Your task to perform on an android device: Go to ESPN.com Image 0: 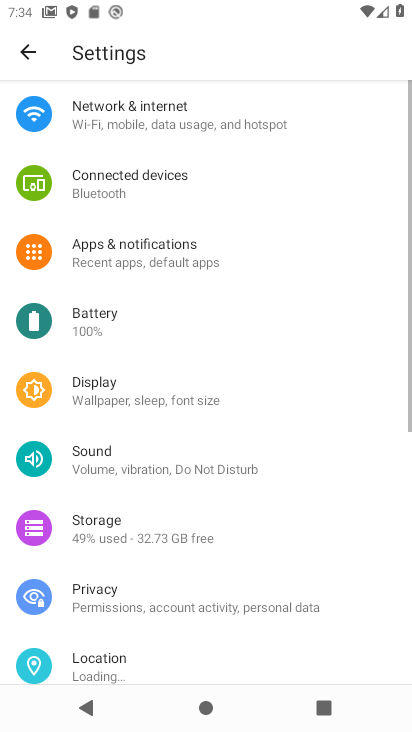
Step 0: press home button
Your task to perform on an android device: Go to ESPN.com Image 1: 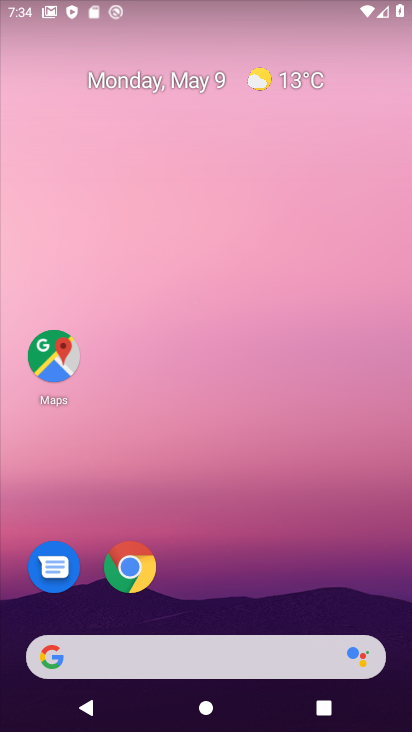
Step 1: click (204, 661)
Your task to perform on an android device: Go to ESPN.com Image 2: 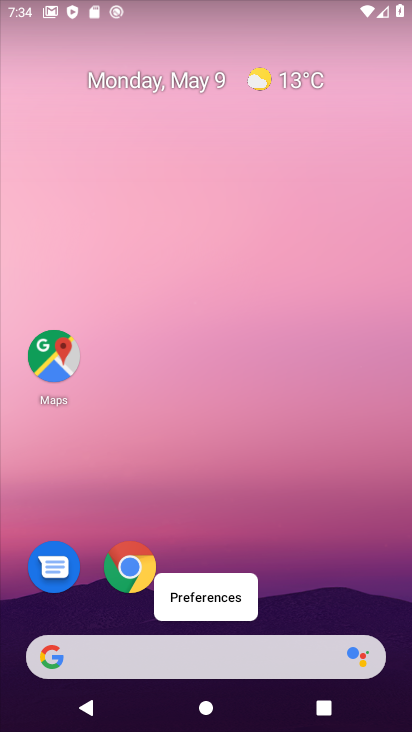
Step 2: click (204, 661)
Your task to perform on an android device: Go to ESPN.com Image 3: 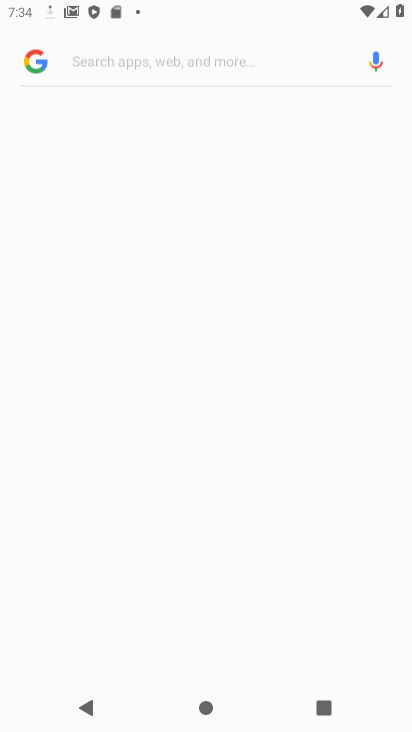
Step 3: click (204, 661)
Your task to perform on an android device: Go to ESPN.com Image 4: 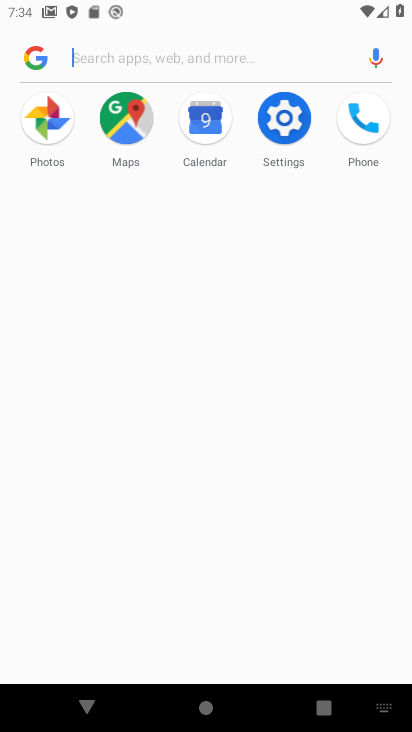
Step 4: type "espn.com"
Your task to perform on an android device: Go to ESPN.com Image 5: 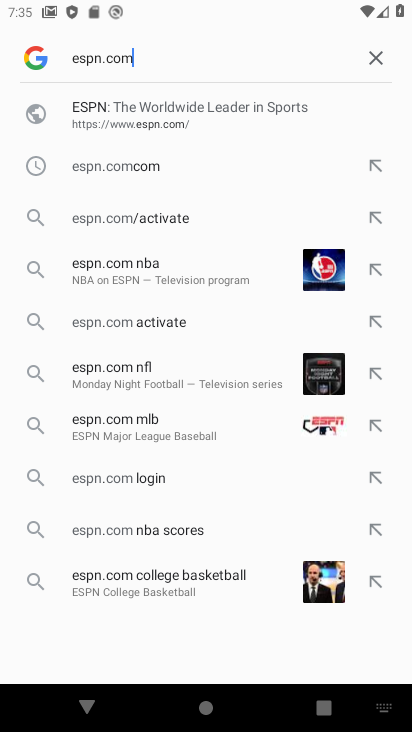
Step 5: click (76, 103)
Your task to perform on an android device: Go to ESPN.com Image 6: 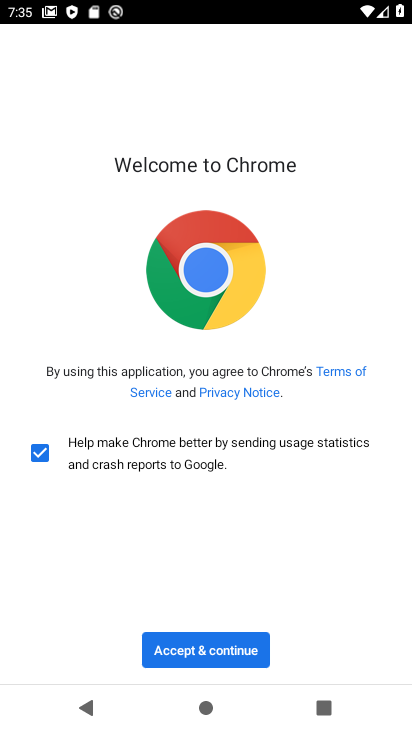
Step 6: click (212, 648)
Your task to perform on an android device: Go to ESPN.com Image 7: 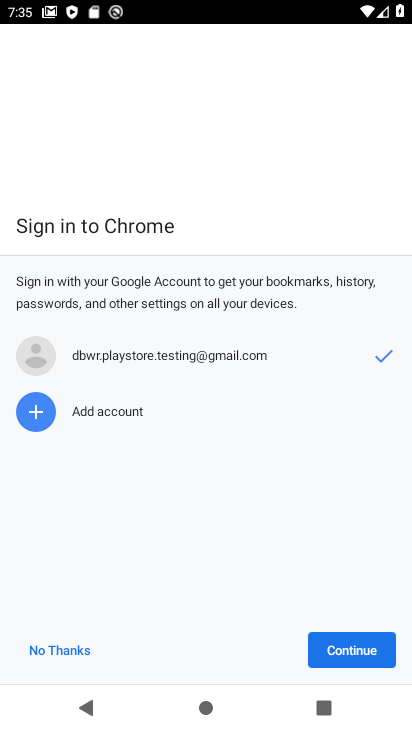
Step 7: click (374, 649)
Your task to perform on an android device: Go to ESPN.com Image 8: 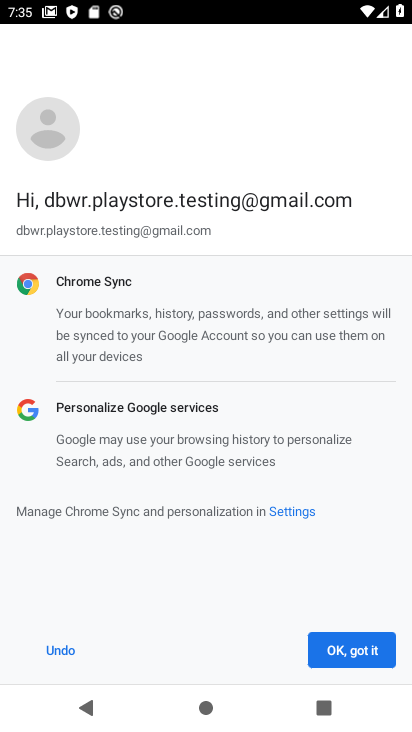
Step 8: click (375, 649)
Your task to perform on an android device: Go to ESPN.com Image 9: 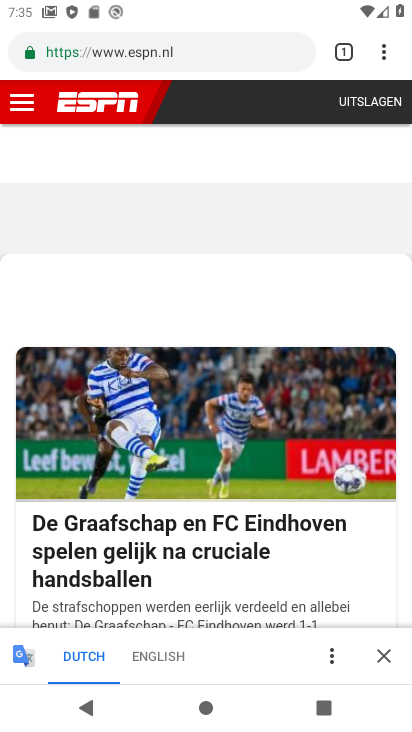
Step 9: task complete